Your task to perform on an android device: check data usage Image 0: 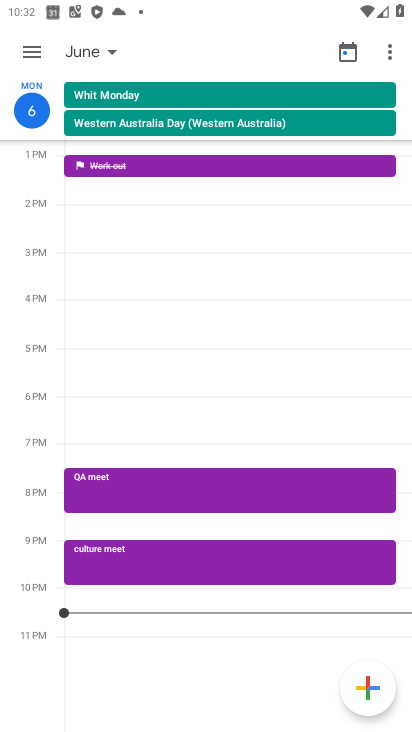
Step 0: press back button
Your task to perform on an android device: check data usage Image 1: 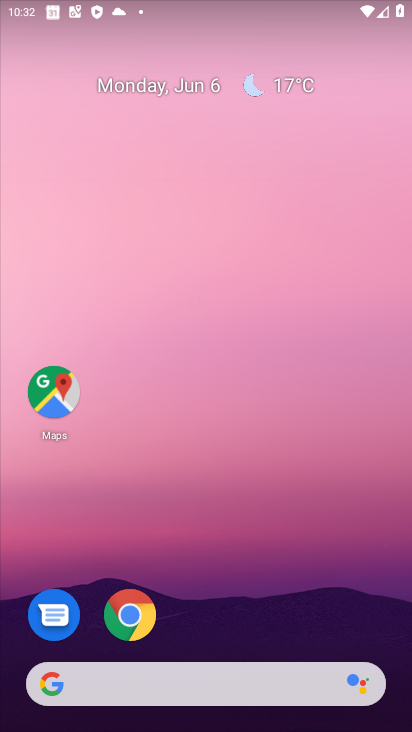
Step 1: drag from (258, 558) to (322, 75)
Your task to perform on an android device: check data usage Image 2: 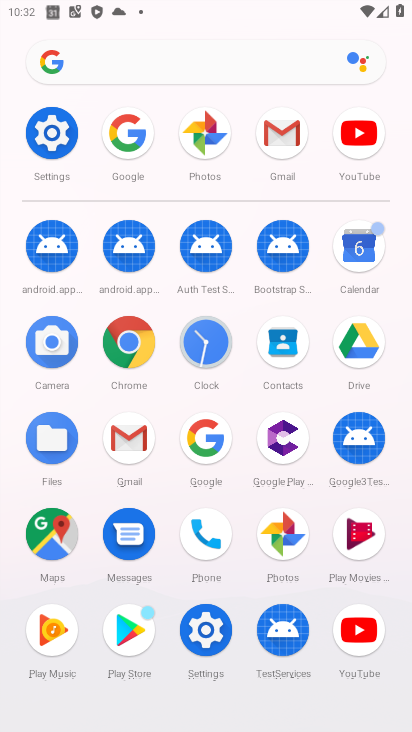
Step 2: click (64, 125)
Your task to perform on an android device: check data usage Image 3: 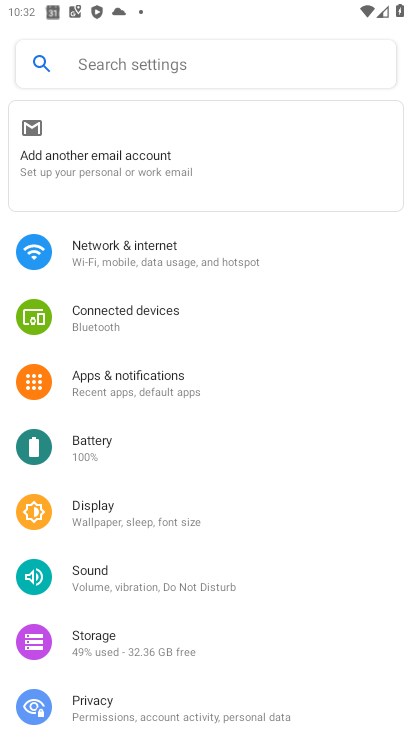
Step 3: click (150, 257)
Your task to perform on an android device: check data usage Image 4: 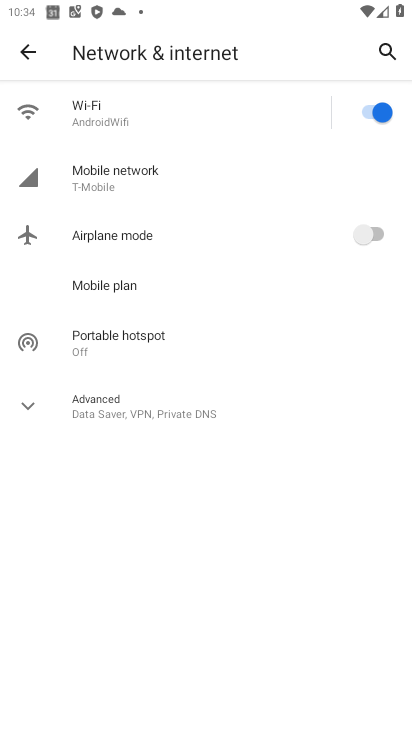
Step 4: click (122, 181)
Your task to perform on an android device: check data usage Image 5: 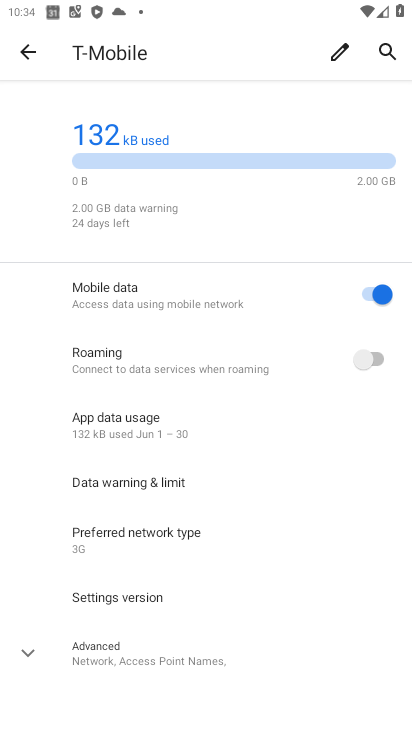
Step 5: click (147, 429)
Your task to perform on an android device: check data usage Image 6: 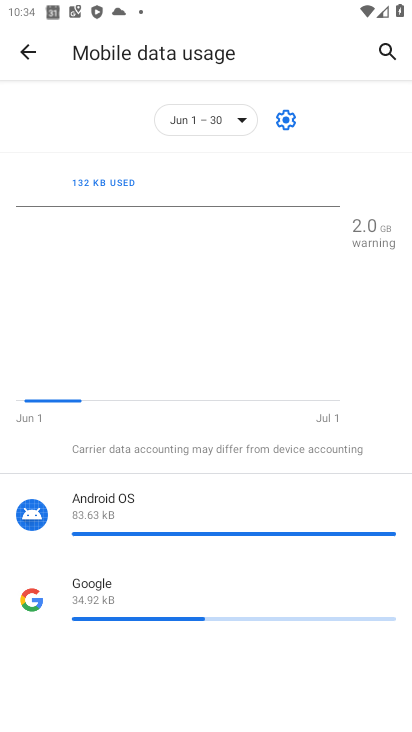
Step 6: task complete